Your task to perform on an android device: Open the web browser Image 0: 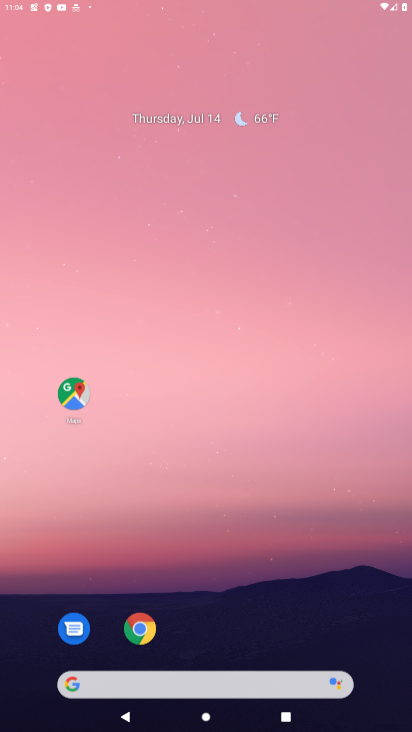
Step 0: press home button
Your task to perform on an android device: Open the web browser Image 1: 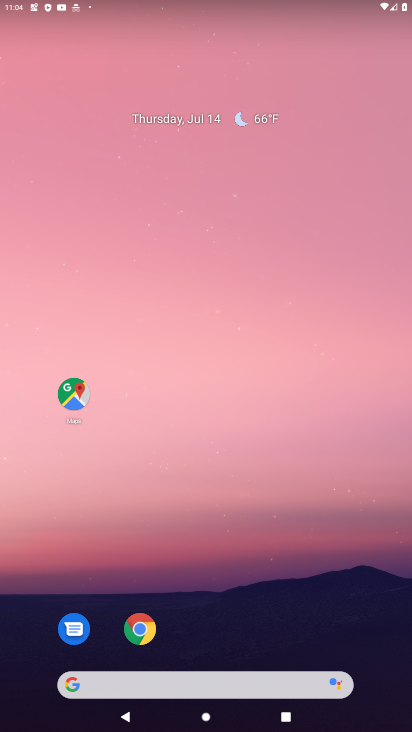
Step 1: click (62, 683)
Your task to perform on an android device: Open the web browser Image 2: 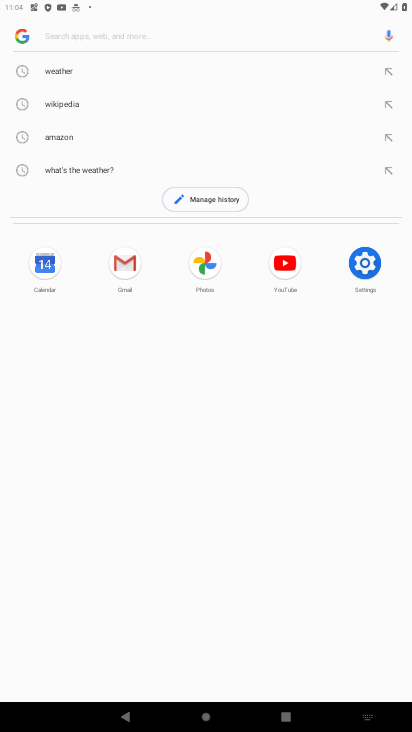
Step 2: click (13, 35)
Your task to perform on an android device: Open the web browser Image 3: 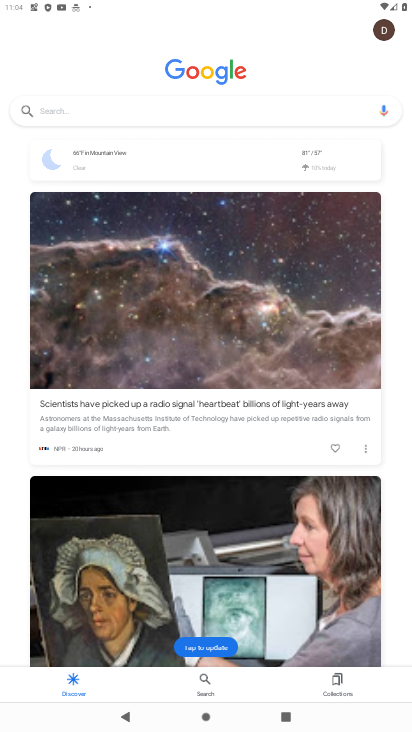
Step 3: task complete